Your task to perform on an android device: change your default location settings in chrome Image 0: 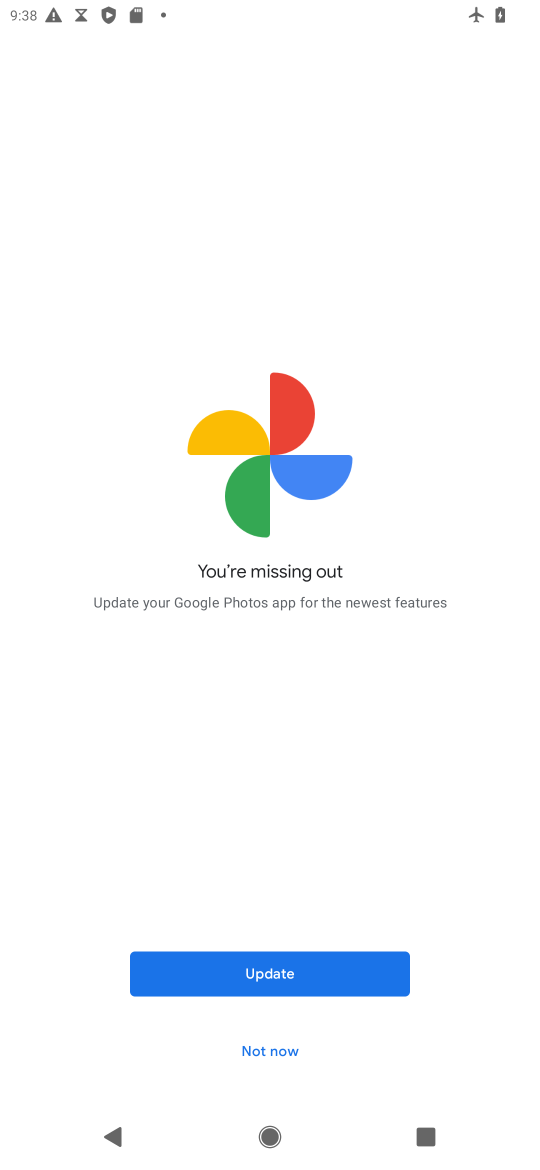
Step 0: press home button
Your task to perform on an android device: change your default location settings in chrome Image 1: 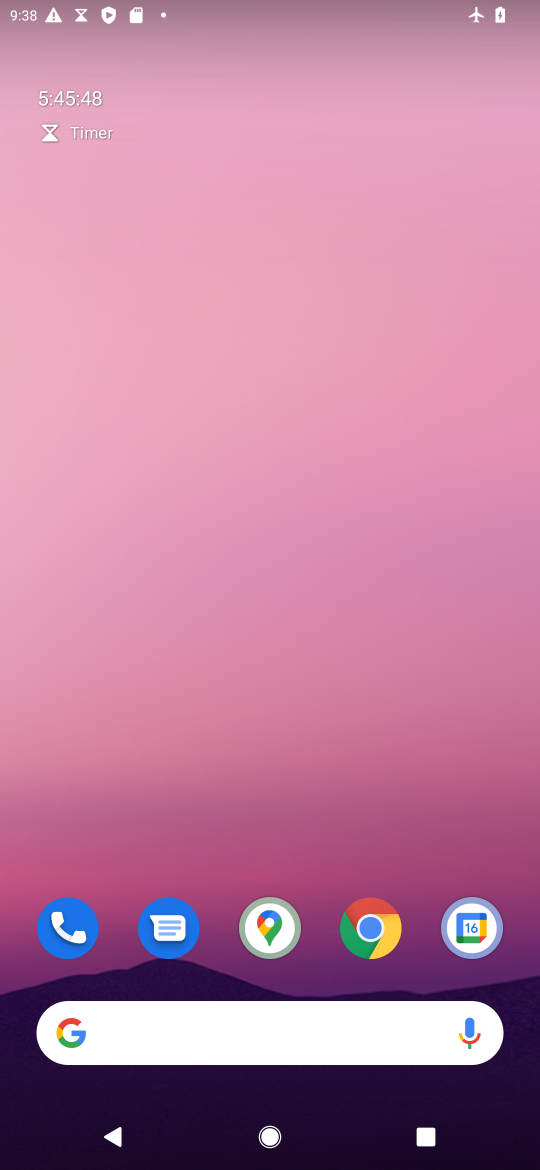
Step 1: click (381, 923)
Your task to perform on an android device: change your default location settings in chrome Image 2: 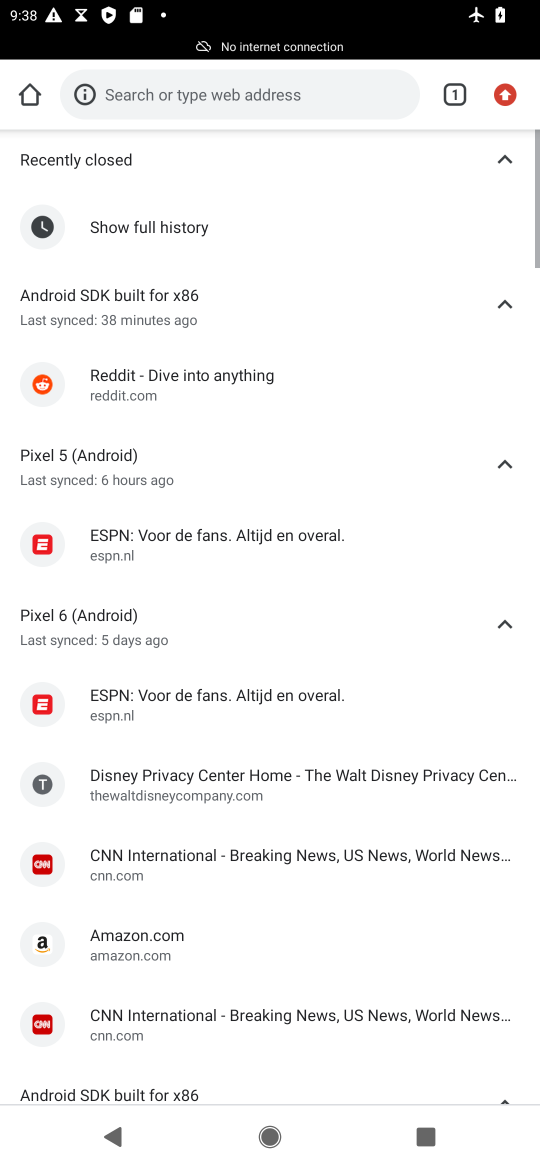
Step 2: drag from (500, 66) to (321, 683)
Your task to perform on an android device: change your default location settings in chrome Image 3: 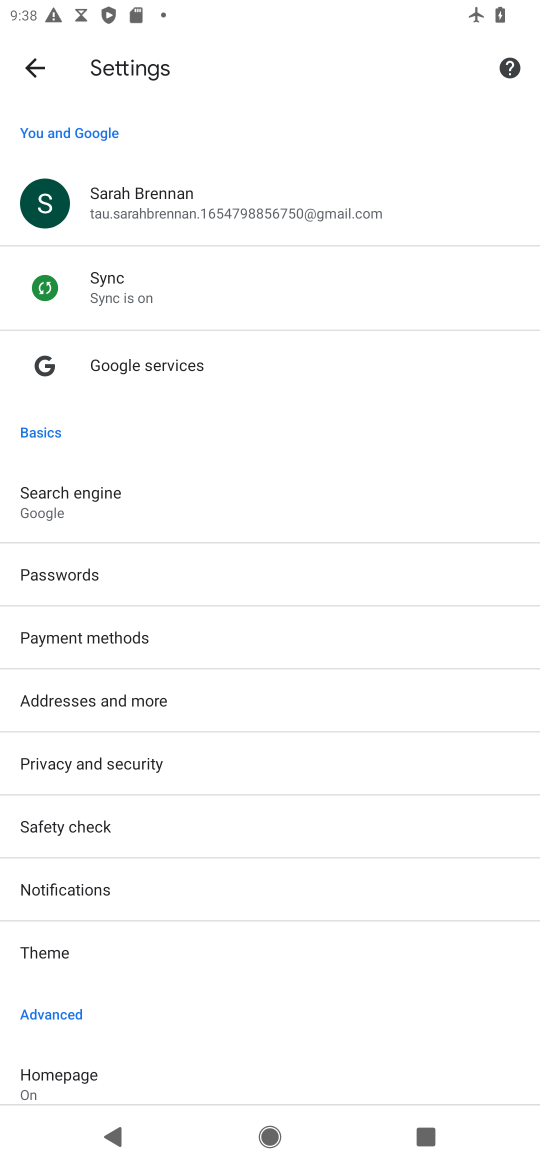
Step 3: drag from (131, 1012) to (158, 699)
Your task to perform on an android device: change your default location settings in chrome Image 4: 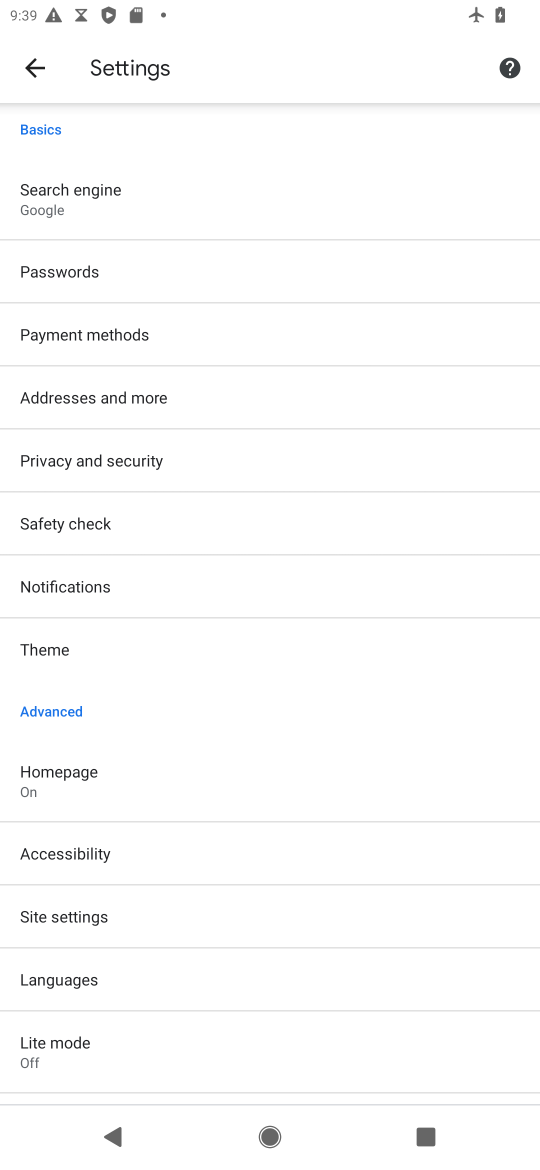
Step 4: click (146, 910)
Your task to perform on an android device: change your default location settings in chrome Image 5: 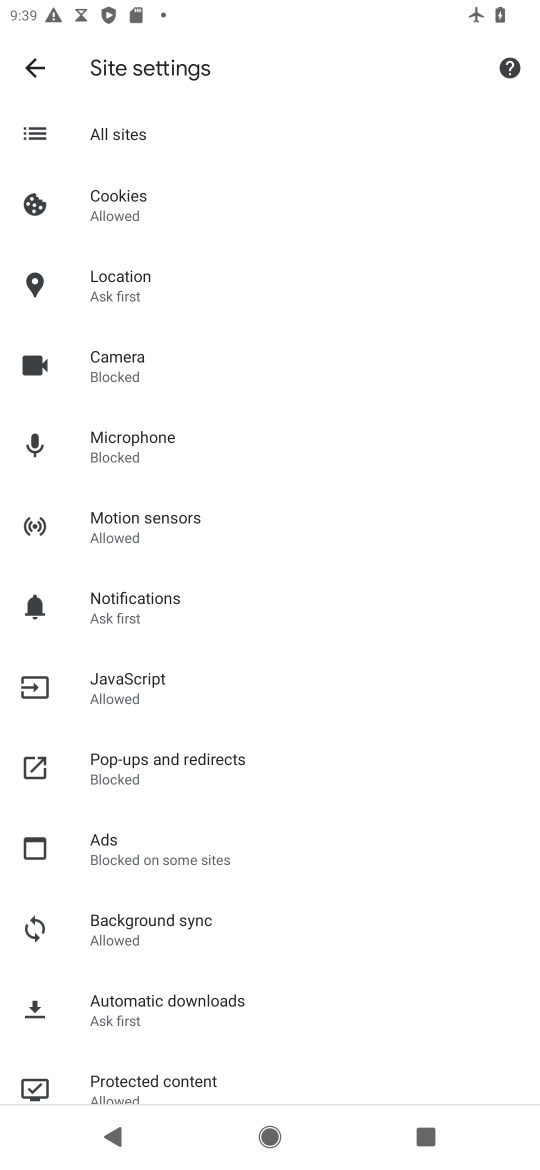
Step 5: click (174, 287)
Your task to perform on an android device: change your default location settings in chrome Image 6: 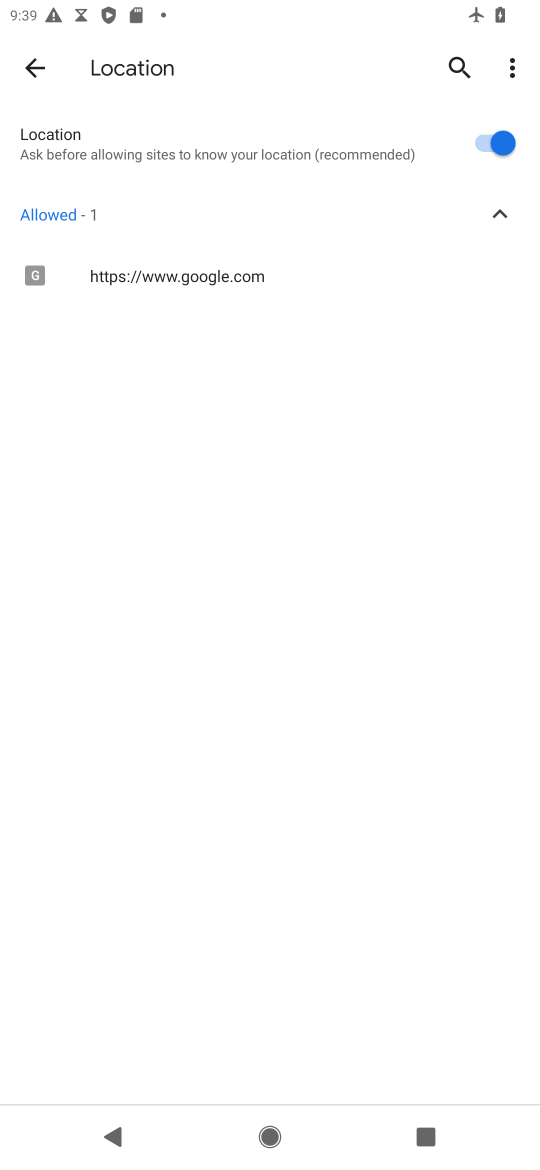
Step 6: click (515, 137)
Your task to perform on an android device: change your default location settings in chrome Image 7: 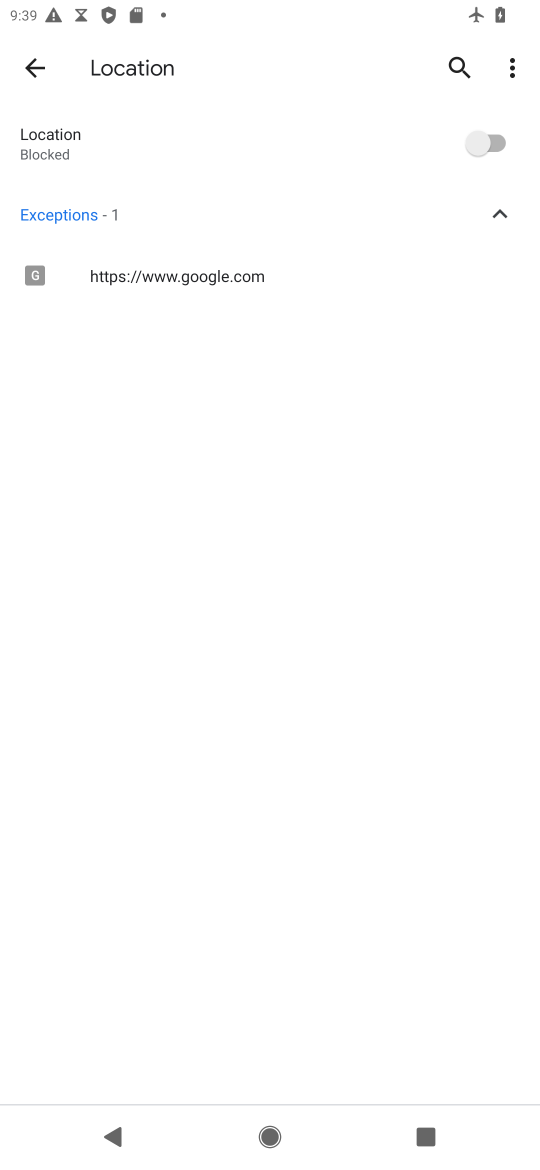
Step 7: task complete